Your task to perform on an android device: Open the calendar app, open the side menu, and click the "Day" option Image 0: 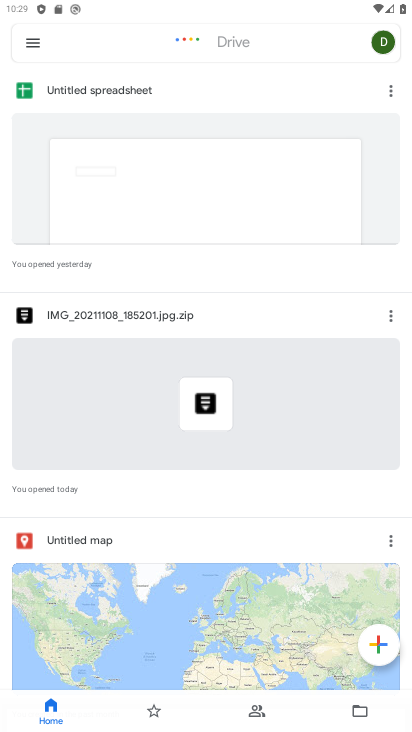
Step 0: press home button
Your task to perform on an android device: Open the calendar app, open the side menu, and click the "Day" option Image 1: 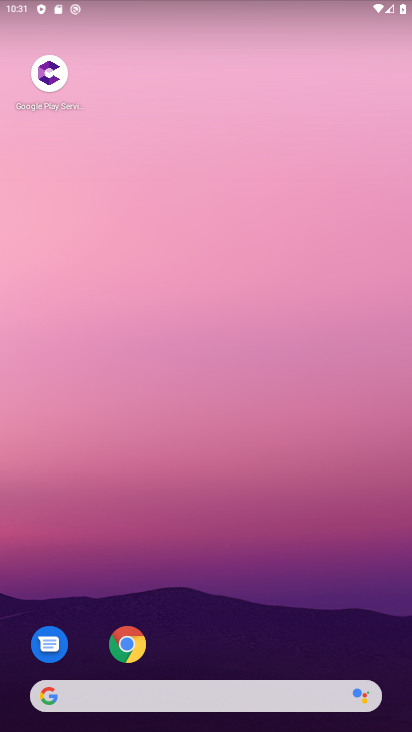
Step 1: drag from (47, 582) to (254, 124)
Your task to perform on an android device: Open the calendar app, open the side menu, and click the "Day" option Image 2: 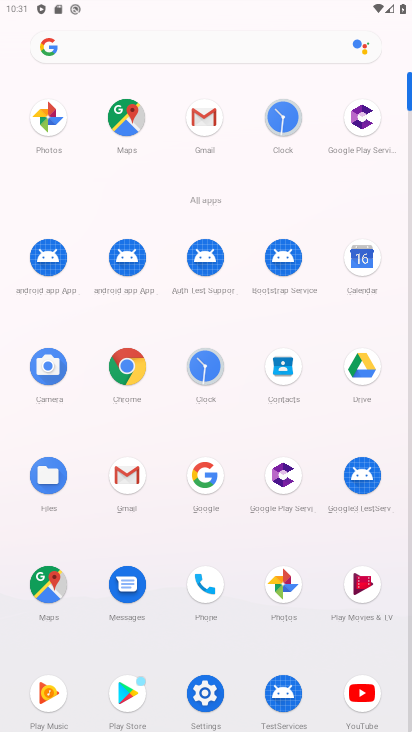
Step 2: click (355, 263)
Your task to perform on an android device: Open the calendar app, open the side menu, and click the "Day" option Image 3: 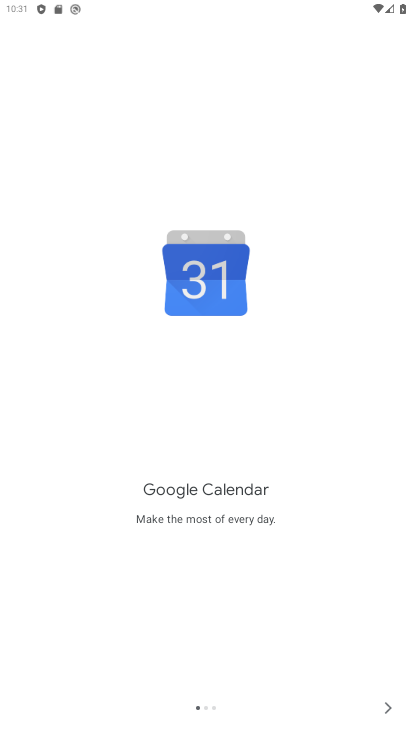
Step 3: click (391, 703)
Your task to perform on an android device: Open the calendar app, open the side menu, and click the "Day" option Image 4: 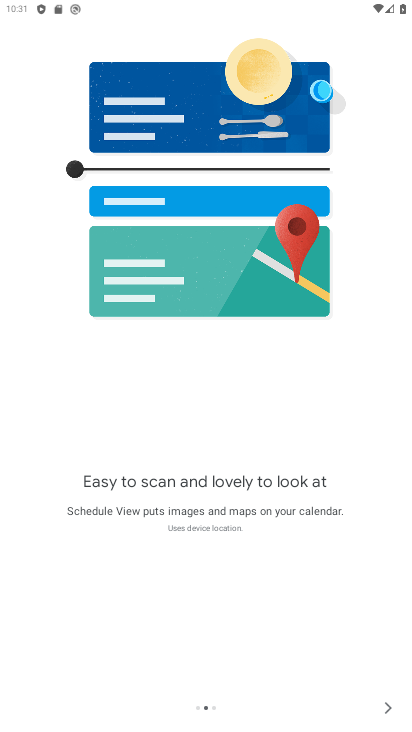
Step 4: click (391, 703)
Your task to perform on an android device: Open the calendar app, open the side menu, and click the "Day" option Image 5: 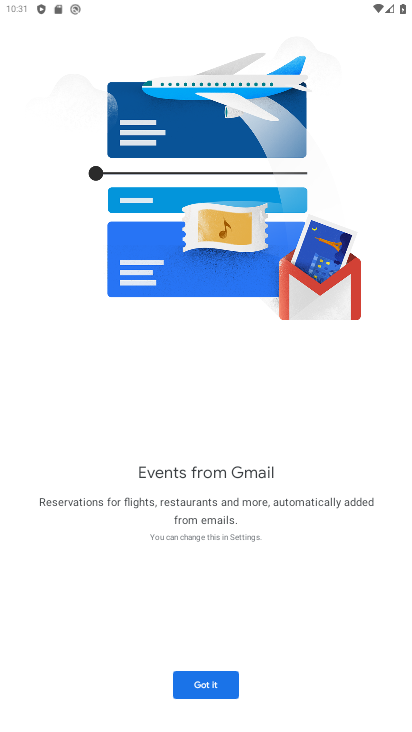
Step 5: click (197, 678)
Your task to perform on an android device: Open the calendar app, open the side menu, and click the "Day" option Image 6: 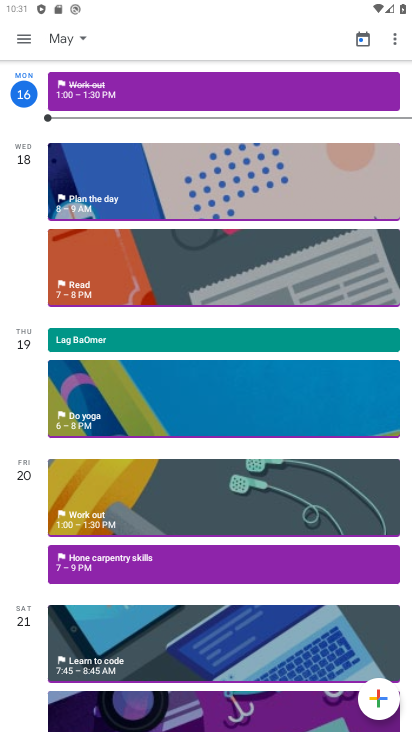
Step 6: click (18, 41)
Your task to perform on an android device: Open the calendar app, open the side menu, and click the "Day" option Image 7: 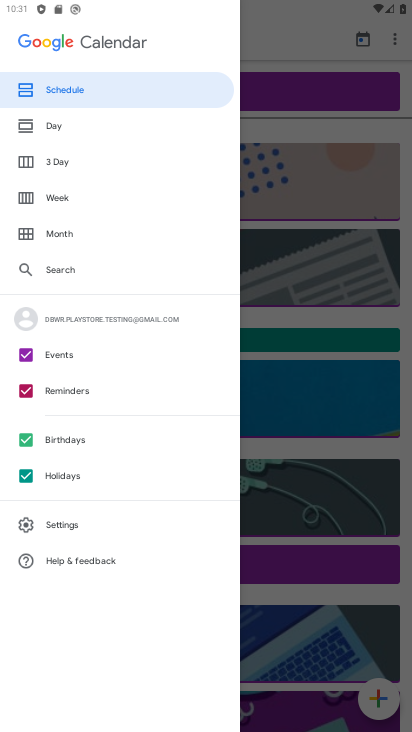
Step 7: click (101, 124)
Your task to perform on an android device: Open the calendar app, open the side menu, and click the "Day" option Image 8: 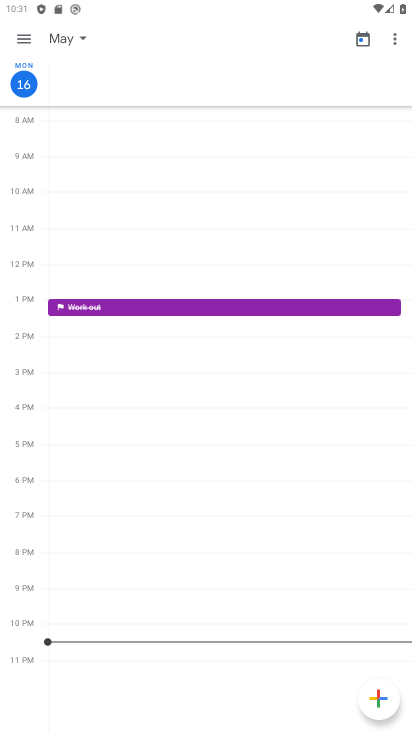
Step 8: task complete